Your task to perform on an android device: Open the calendar app, open the side menu, and click the "Day" option Image 0: 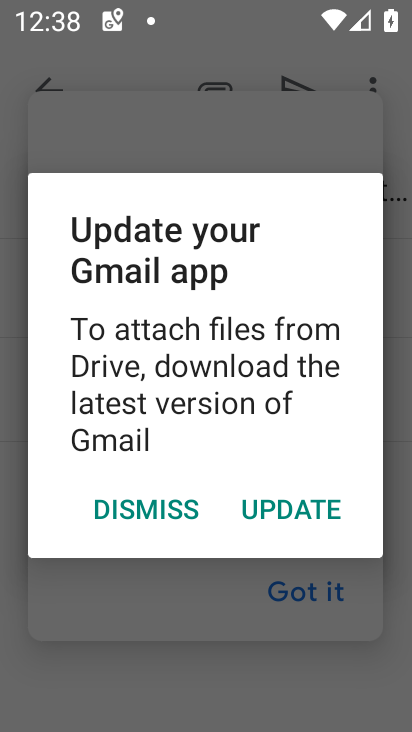
Step 0: press home button
Your task to perform on an android device: Open the calendar app, open the side menu, and click the "Day" option Image 1: 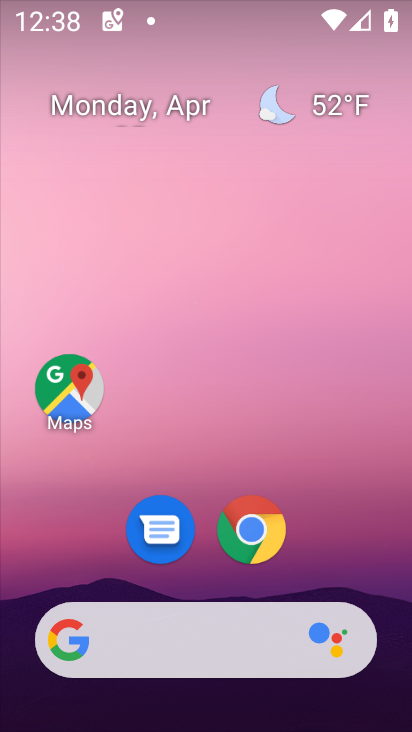
Step 1: drag from (382, 555) to (375, 153)
Your task to perform on an android device: Open the calendar app, open the side menu, and click the "Day" option Image 2: 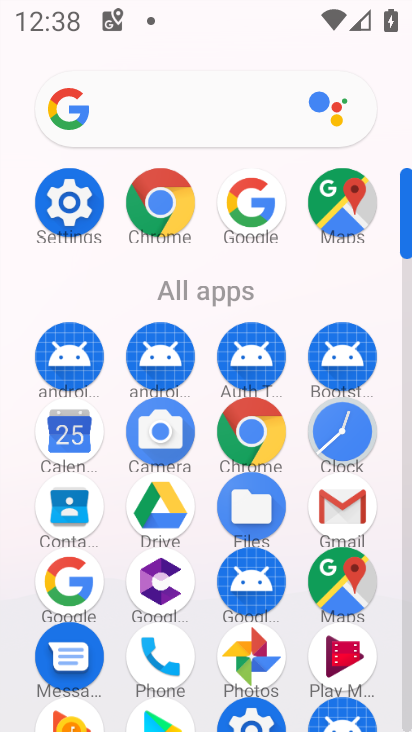
Step 2: click (60, 447)
Your task to perform on an android device: Open the calendar app, open the side menu, and click the "Day" option Image 3: 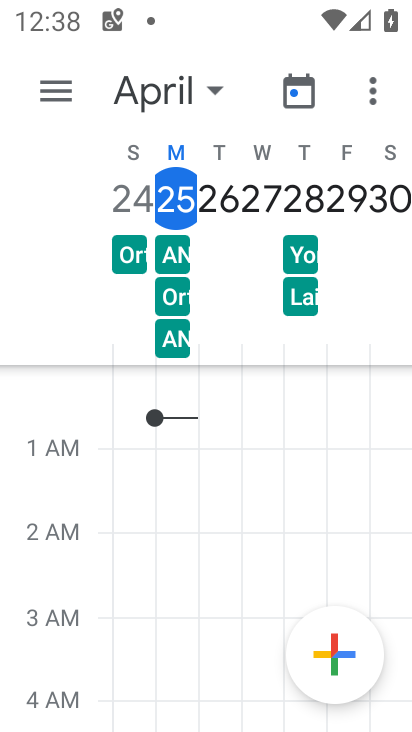
Step 3: click (69, 79)
Your task to perform on an android device: Open the calendar app, open the side menu, and click the "Day" option Image 4: 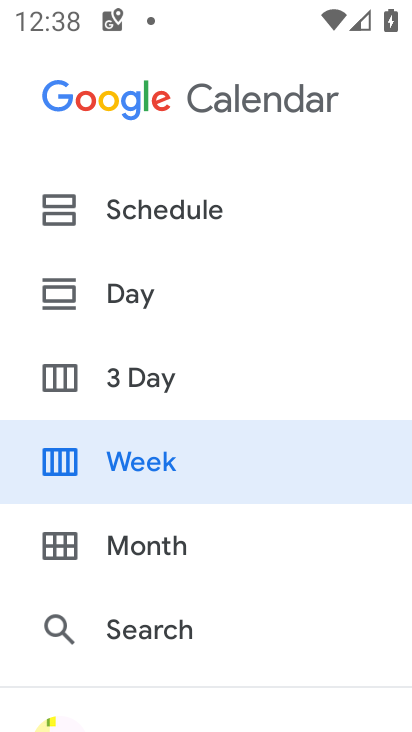
Step 4: click (105, 296)
Your task to perform on an android device: Open the calendar app, open the side menu, and click the "Day" option Image 5: 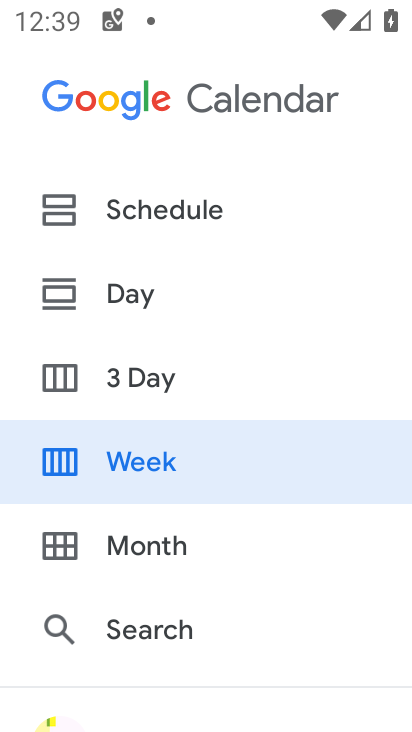
Step 5: click (106, 291)
Your task to perform on an android device: Open the calendar app, open the side menu, and click the "Day" option Image 6: 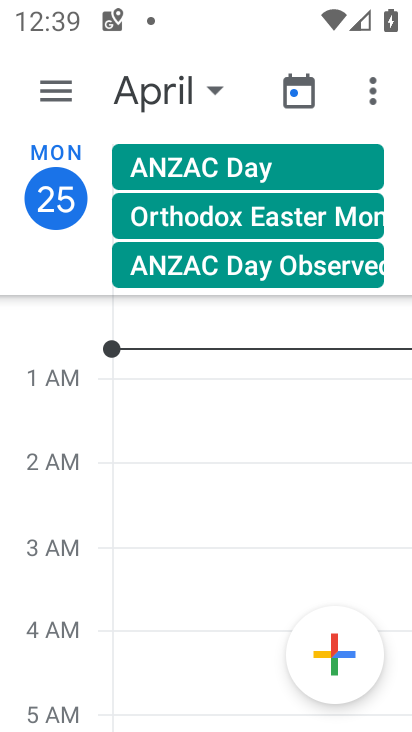
Step 6: task complete